Your task to perform on an android device: check battery use Image 0: 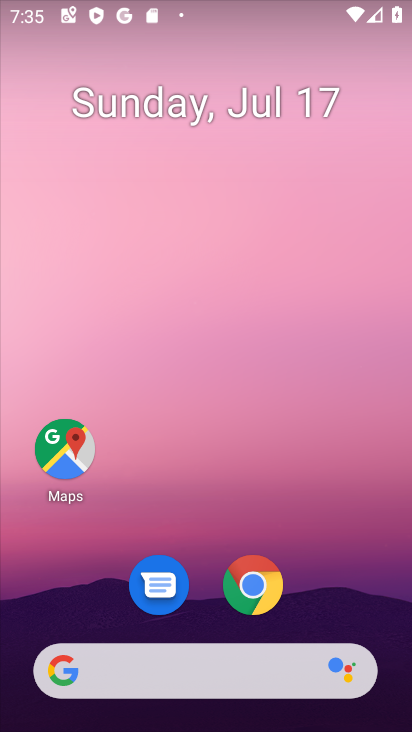
Step 0: drag from (330, 568) to (265, 1)
Your task to perform on an android device: check battery use Image 1: 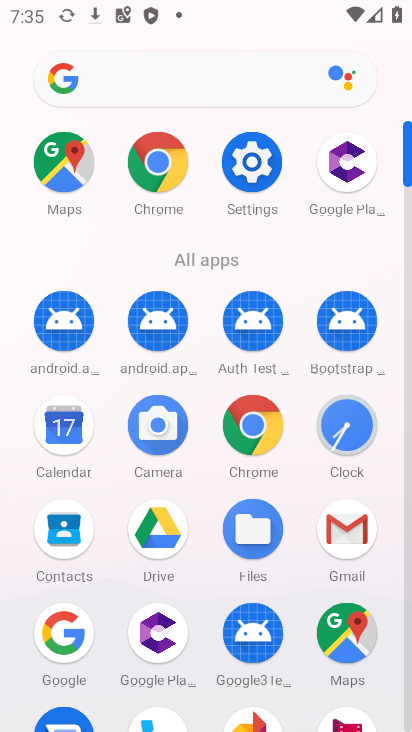
Step 1: click (259, 150)
Your task to perform on an android device: check battery use Image 2: 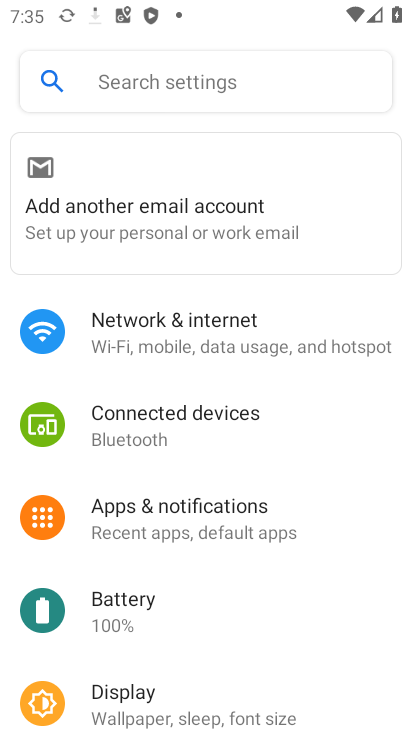
Step 2: click (121, 604)
Your task to perform on an android device: check battery use Image 3: 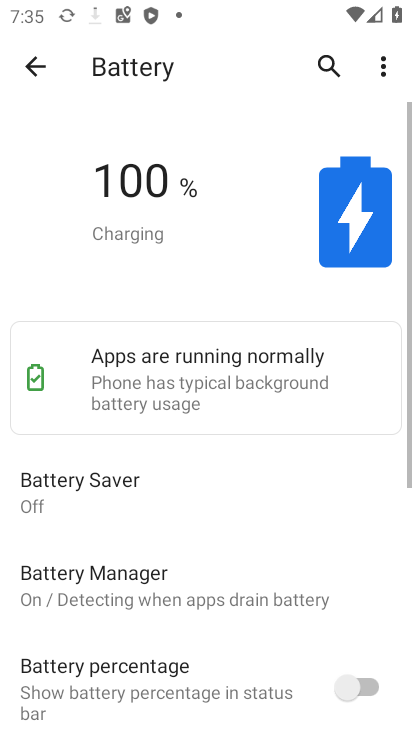
Step 3: click (382, 67)
Your task to perform on an android device: check battery use Image 4: 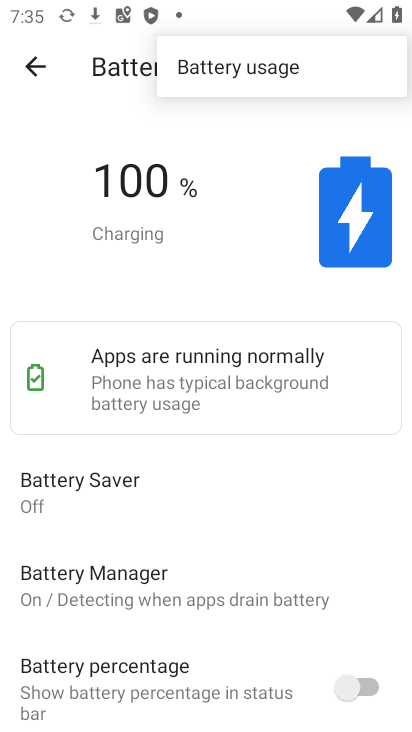
Step 4: click (282, 59)
Your task to perform on an android device: check battery use Image 5: 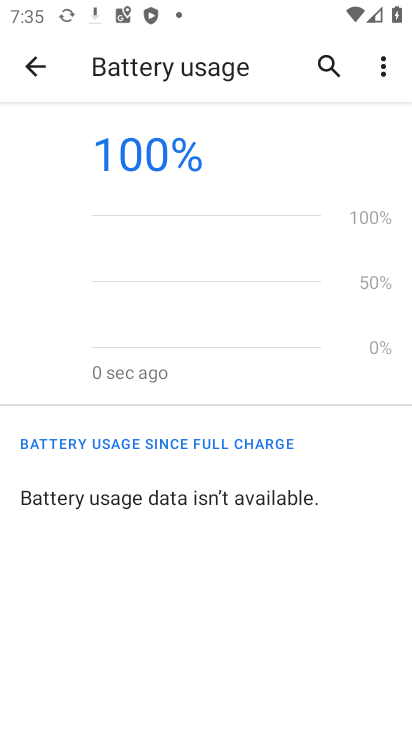
Step 5: task complete